Your task to perform on an android device: toggle data saver in the chrome app Image 0: 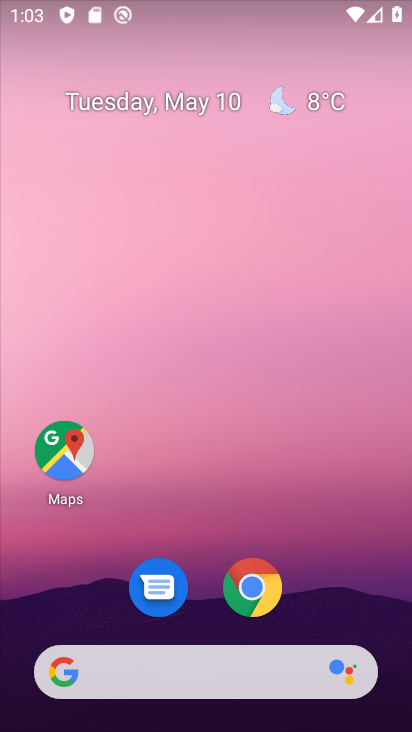
Step 0: click (257, 573)
Your task to perform on an android device: toggle data saver in the chrome app Image 1: 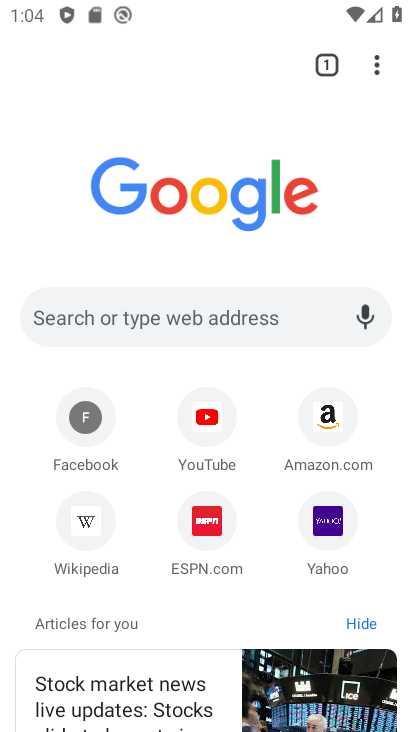
Step 1: click (377, 77)
Your task to perform on an android device: toggle data saver in the chrome app Image 2: 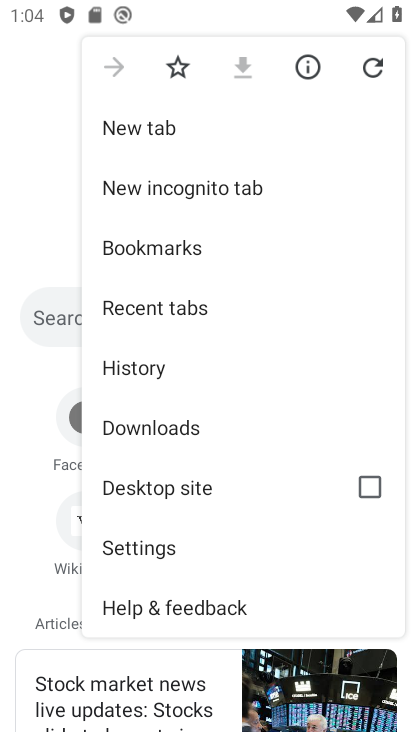
Step 2: click (192, 541)
Your task to perform on an android device: toggle data saver in the chrome app Image 3: 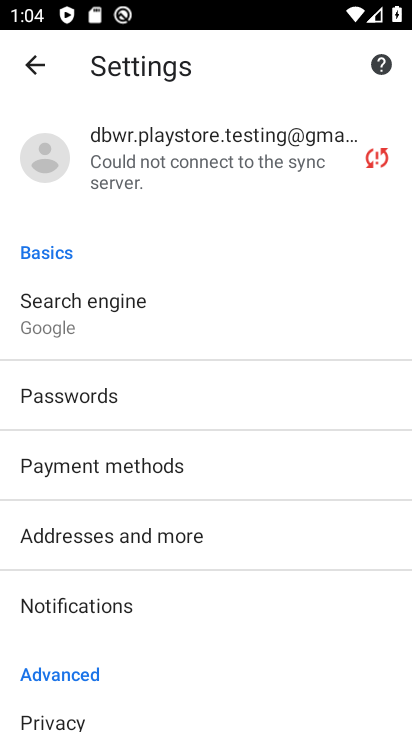
Step 3: drag from (200, 620) to (170, 227)
Your task to perform on an android device: toggle data saver in the chrome app Image 4: 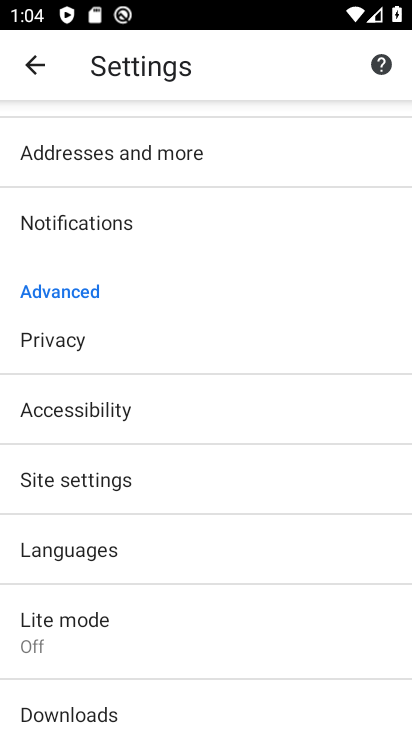
Step 4: click (156, 621)
Your task to perform on an android device: toggle data saver in the chrome app Image 5: 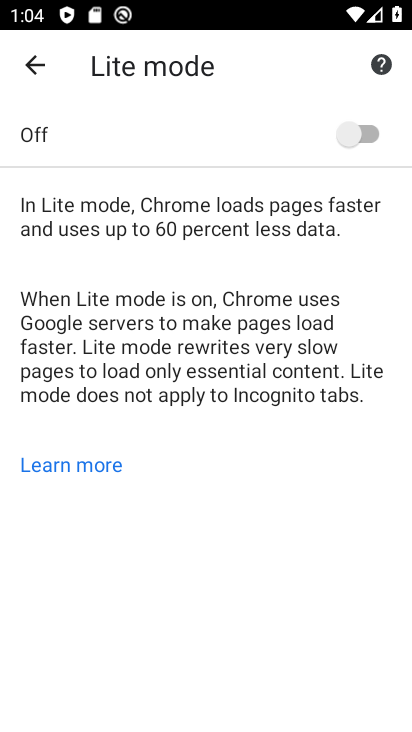
Step 5: click (347, 136)
Your task to perform on an android device: toggle data saver in the chrome app Image 6: 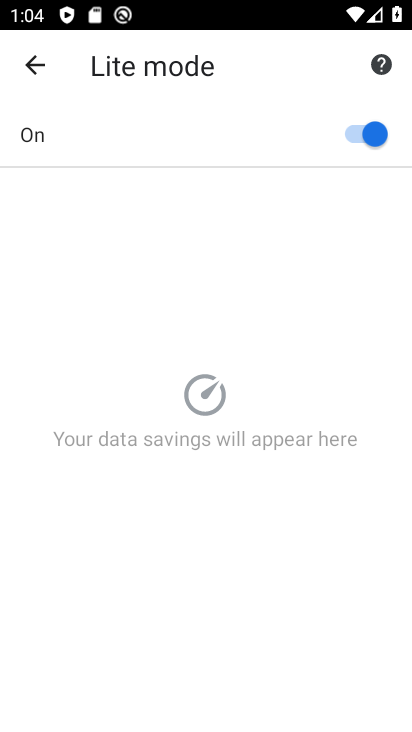
Step 6: task complete